Your task to perform on an android device: delete location history Image 0: 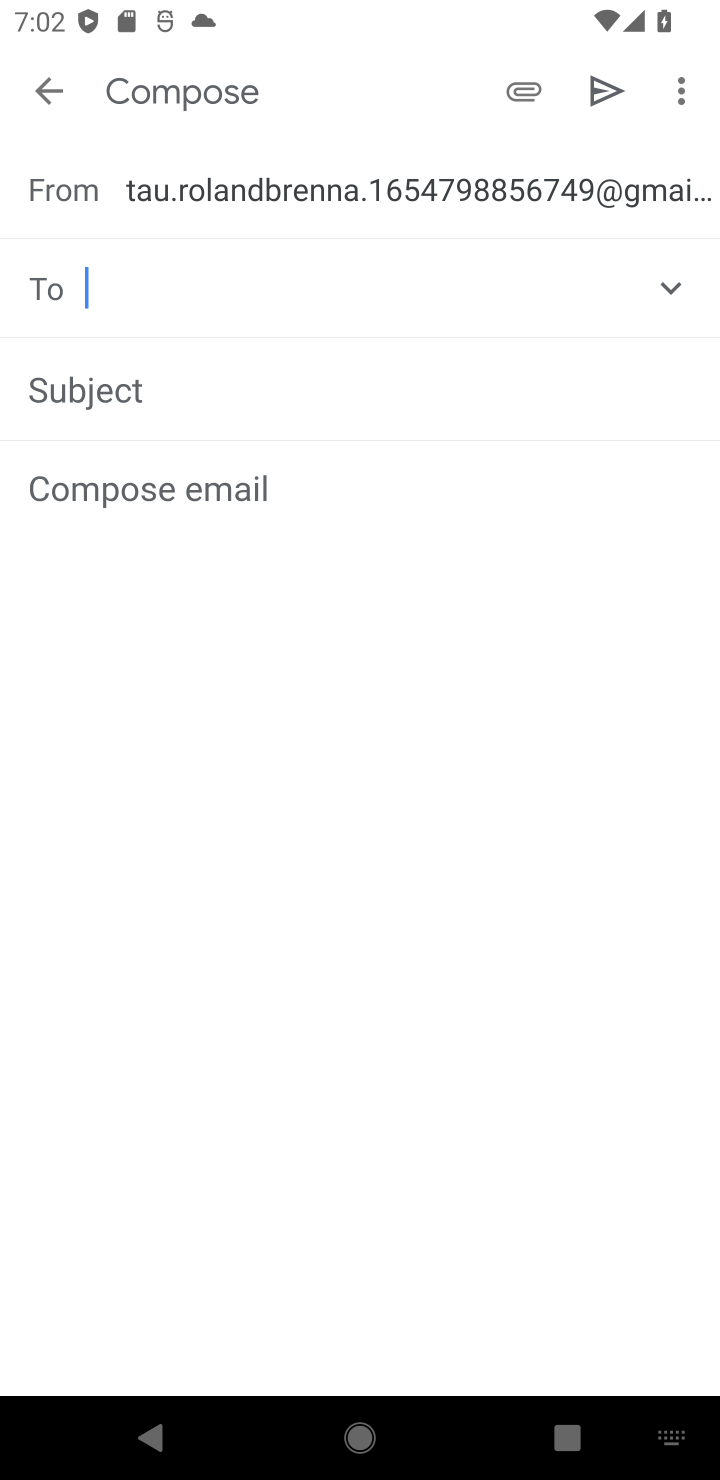
Step 0: press home button
Your task to perform on an android device: delete location history Image 1: 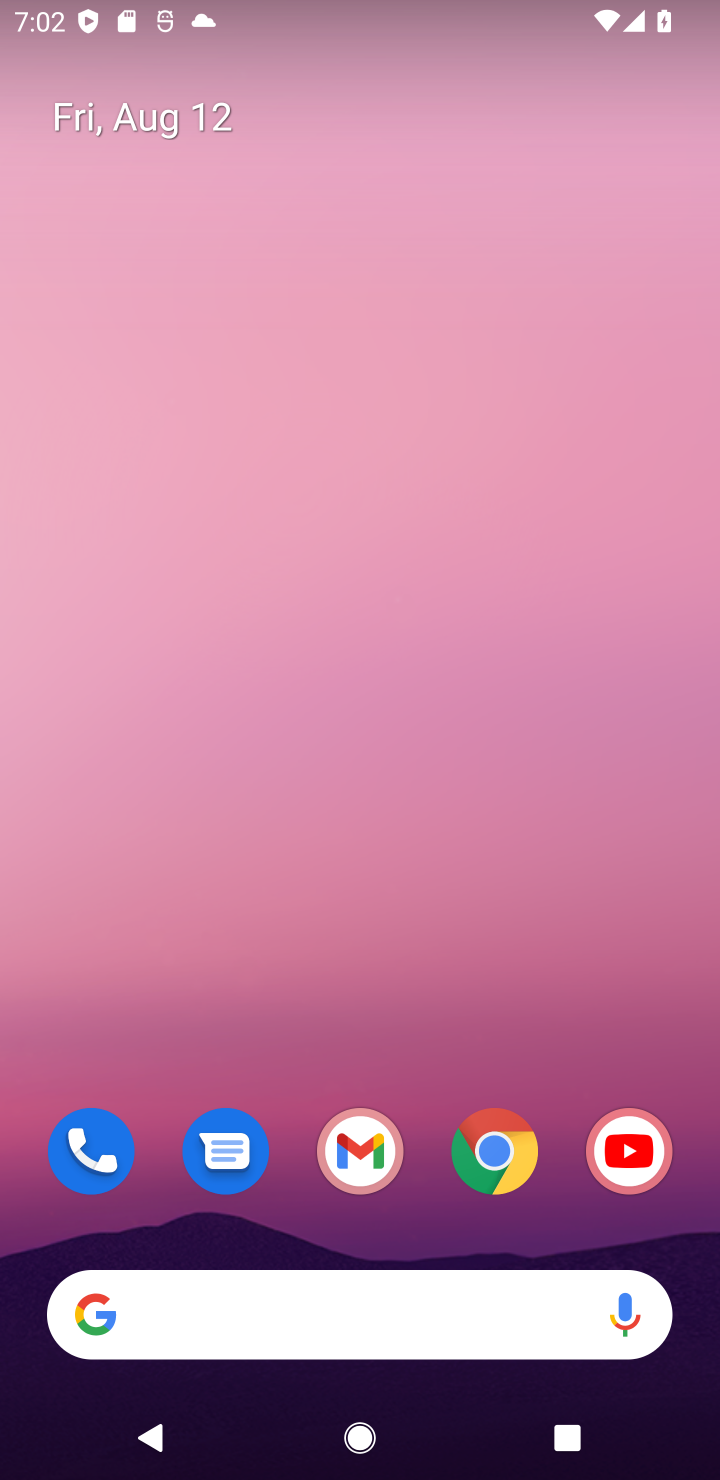
Step 1: drag from (334, 1007) to (402, 18)
Your task to perform on an android device: delete location history Image 2: 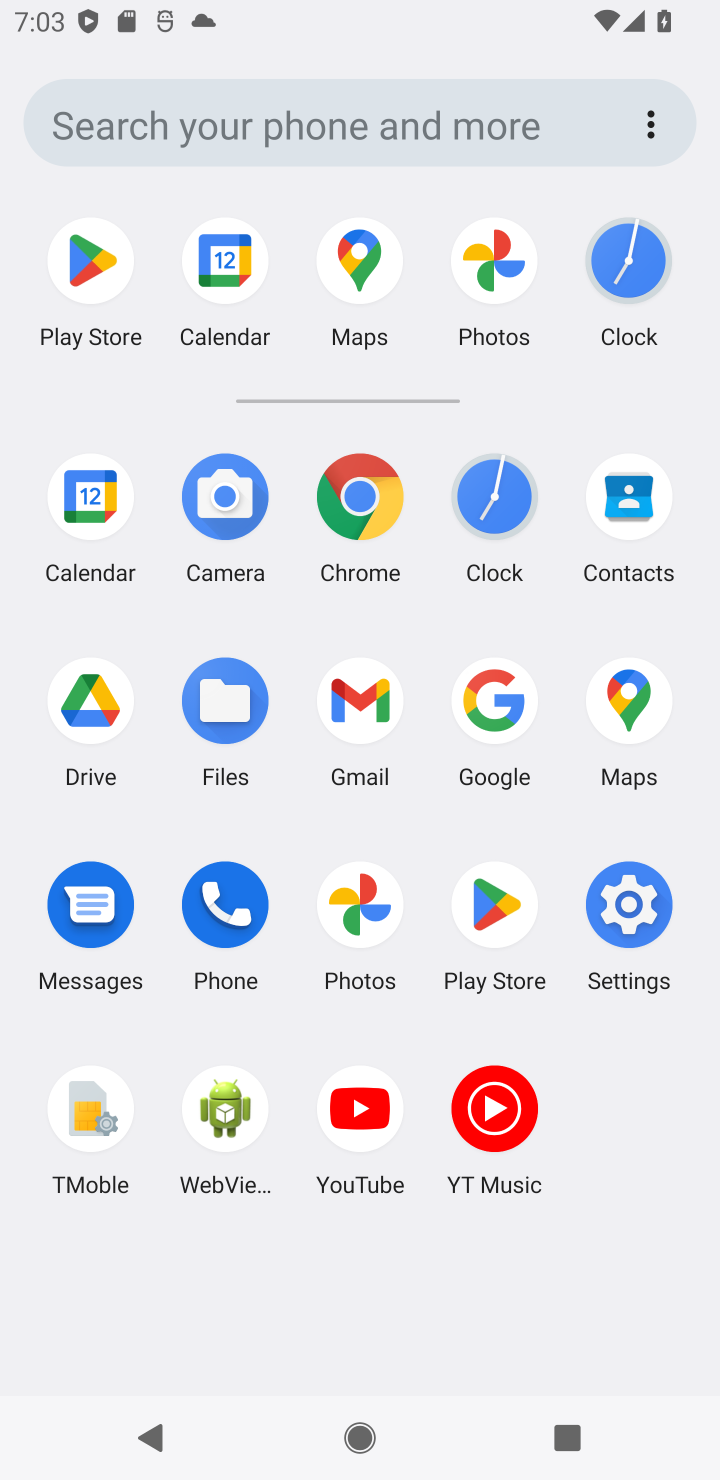
Step 2: click (639, 699)
Your task to perform on an android device: delete location history Image 3: 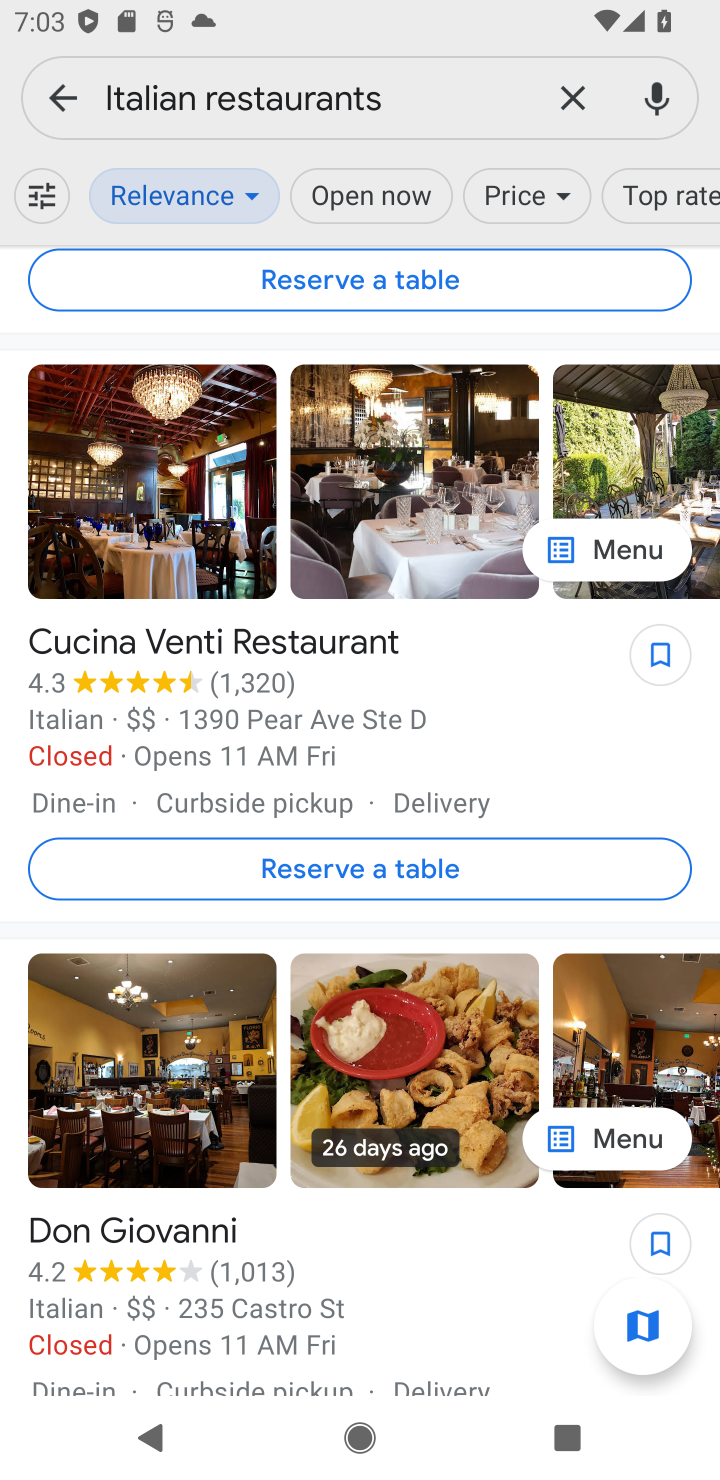
Step 3: click (48, 77)
Your task to perform on an android device: delete location history Image 4: 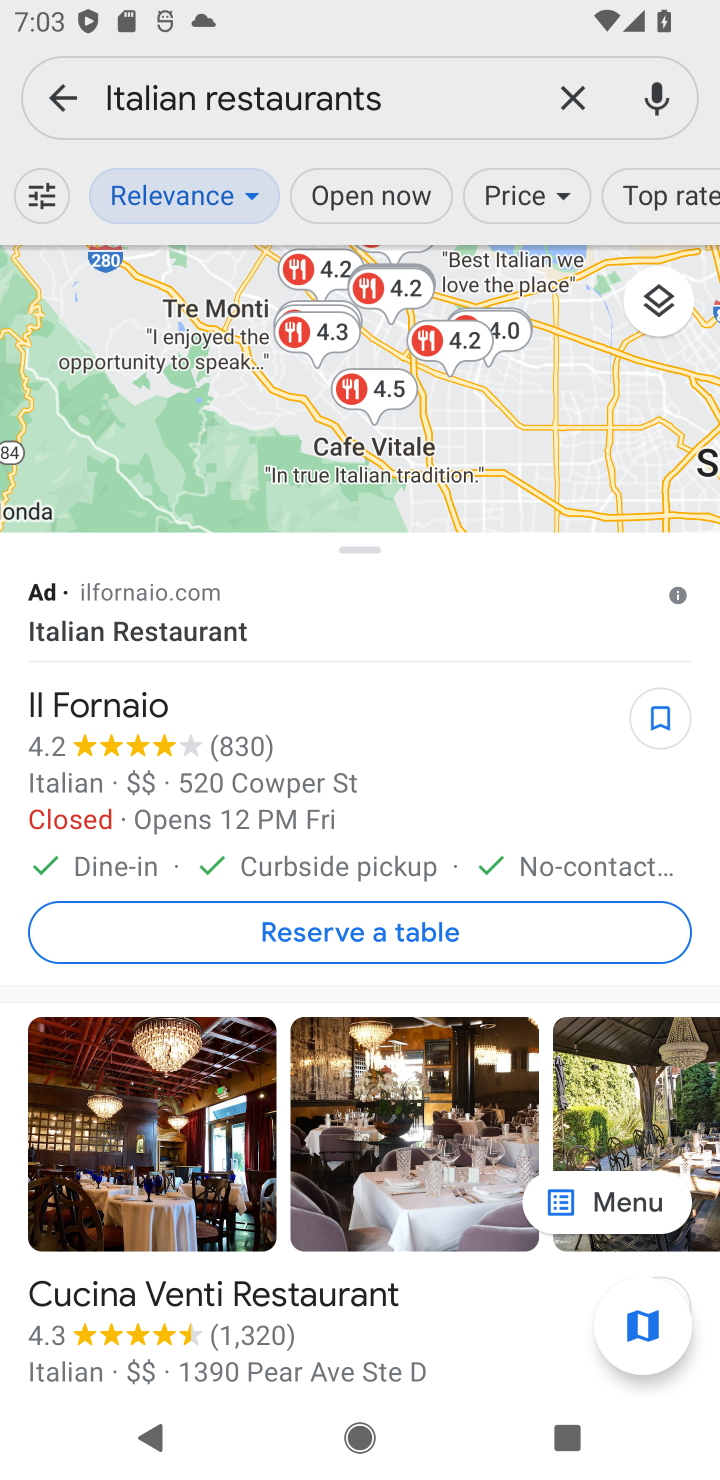
Step 4: click (58, 98)
Your task to perform on an android device: delete location history Image 5: 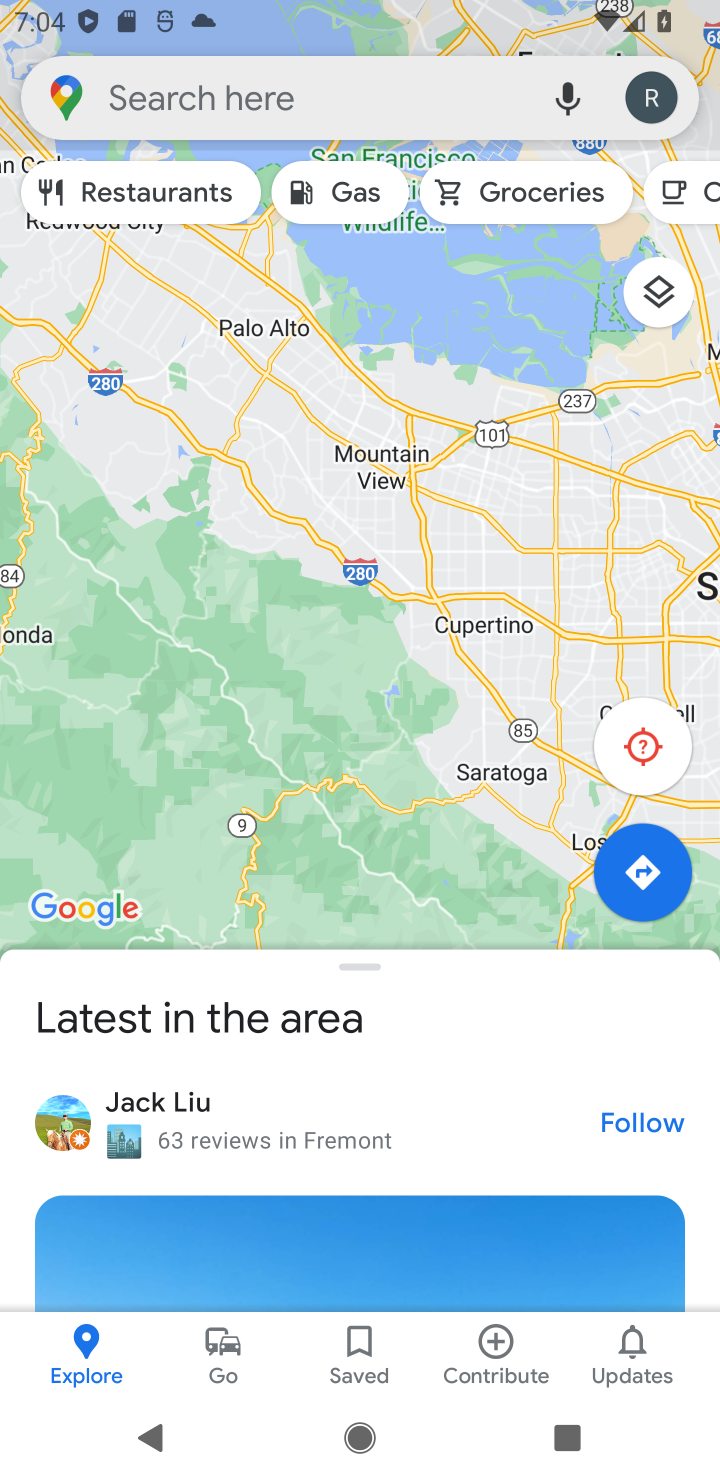
Step 5: click (671, 88)
Your task to perform on an android device: delete location history Image 6: 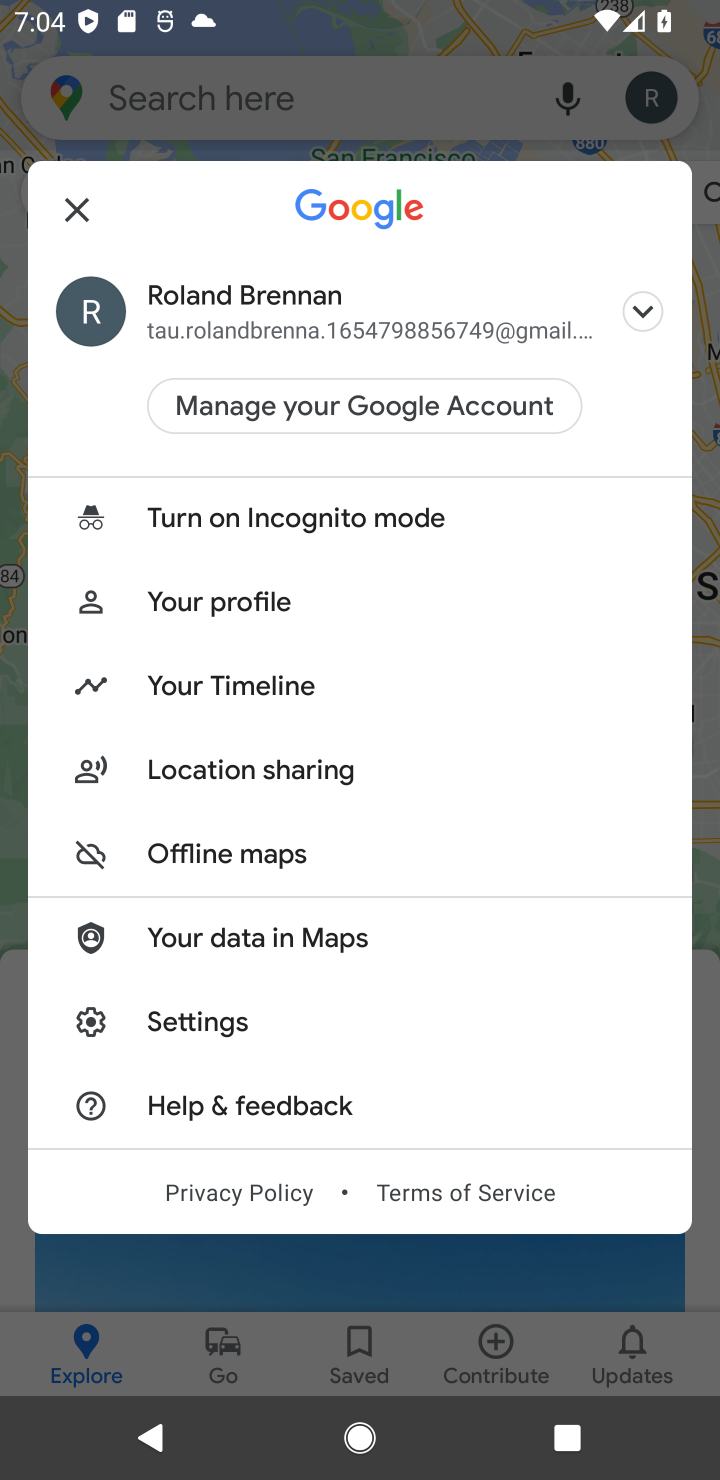
Step 6: click (216, 999)
Your task to perform on an android device: delete location history Image 7: 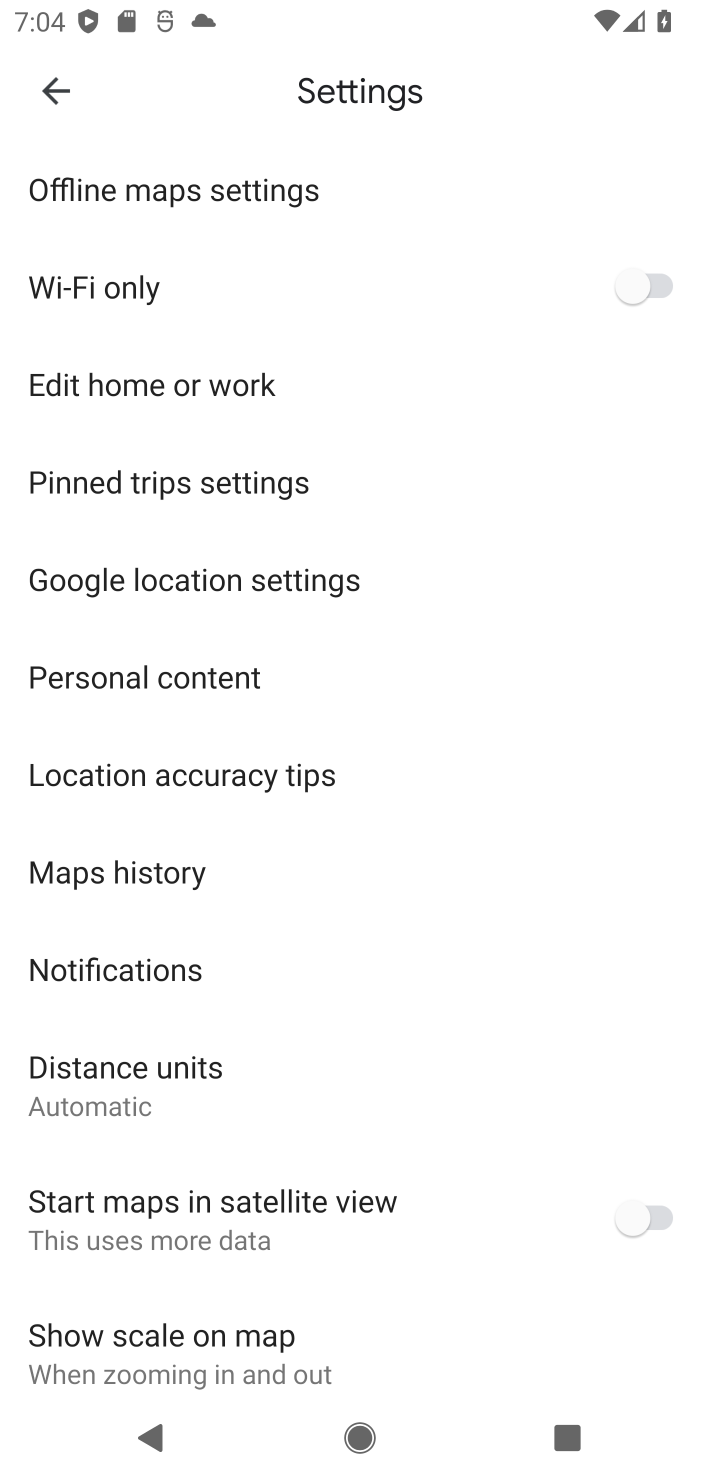
Step 7: click (117, 873)
Your task to perform on an android device: delete location history Image 8: 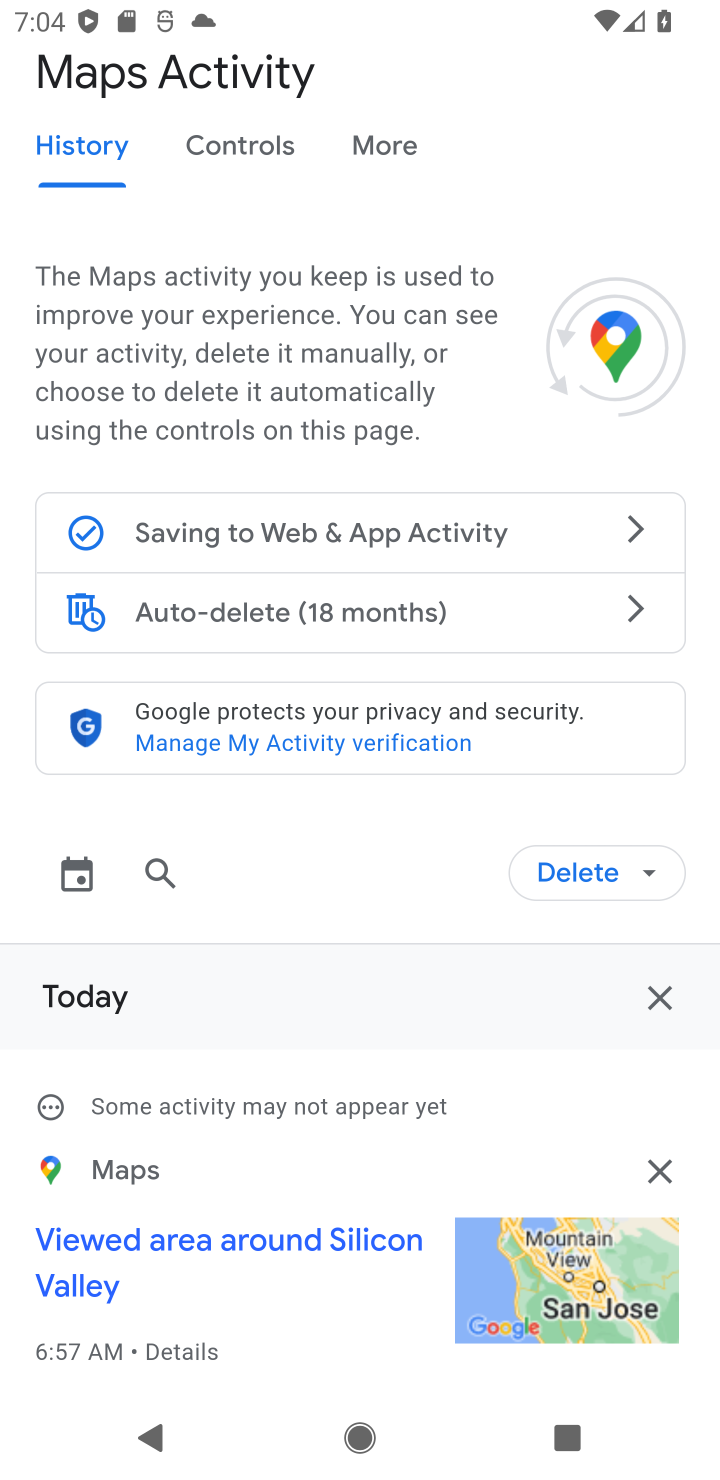
Step 8: click (655, 879)
Your task to perform on an android device: delete location history Image 9: 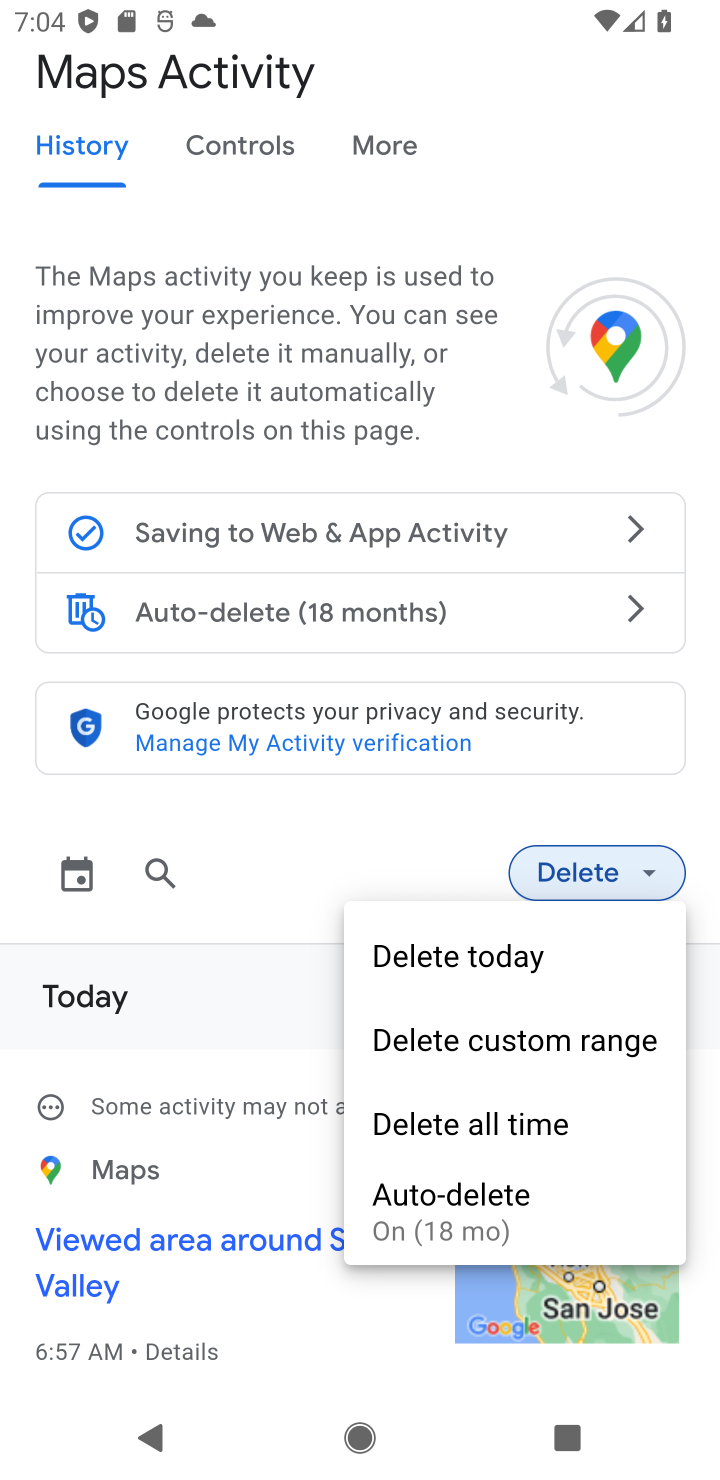
Step 9: click (549, 1118)
Your task to perform on an android device: delete location history Image 10: 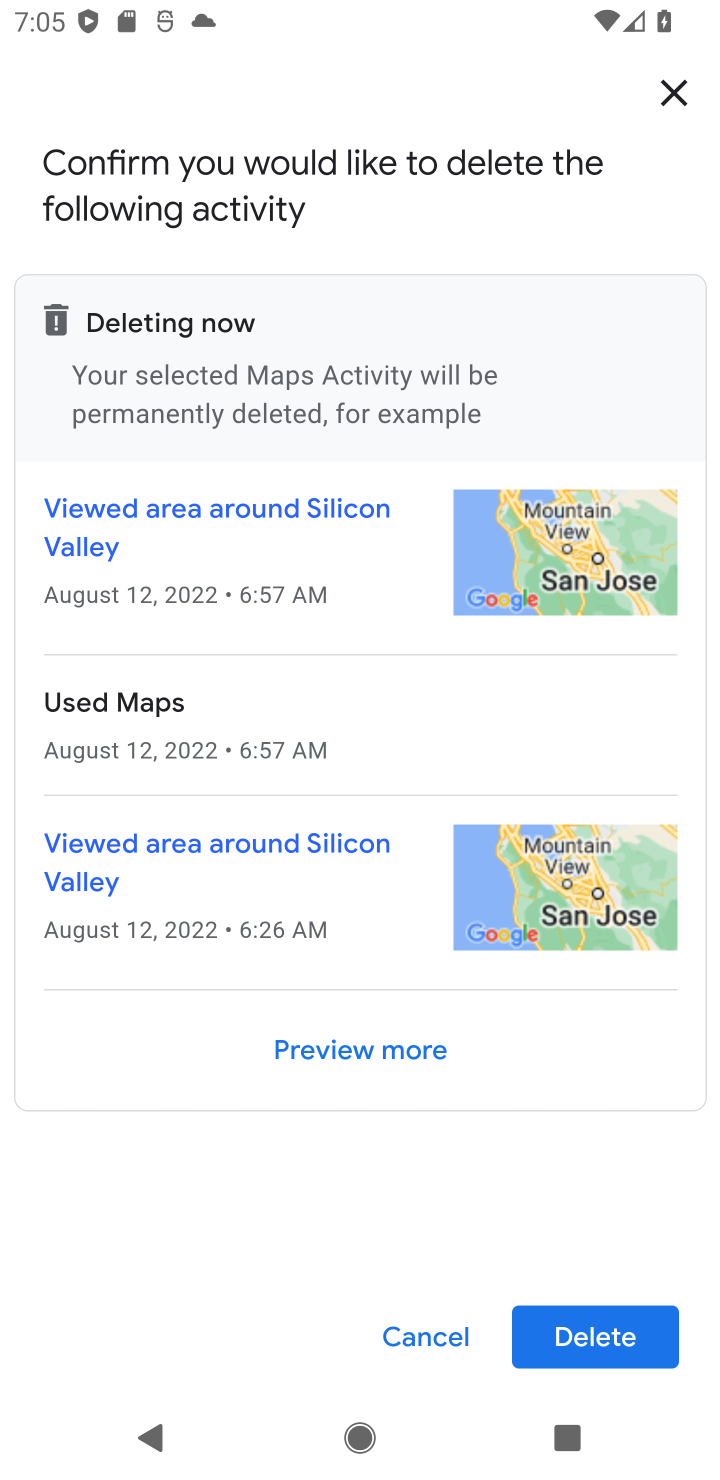
Step 10: click (604, 1321)
Your task to perform on an android device: delete location history Image 11: 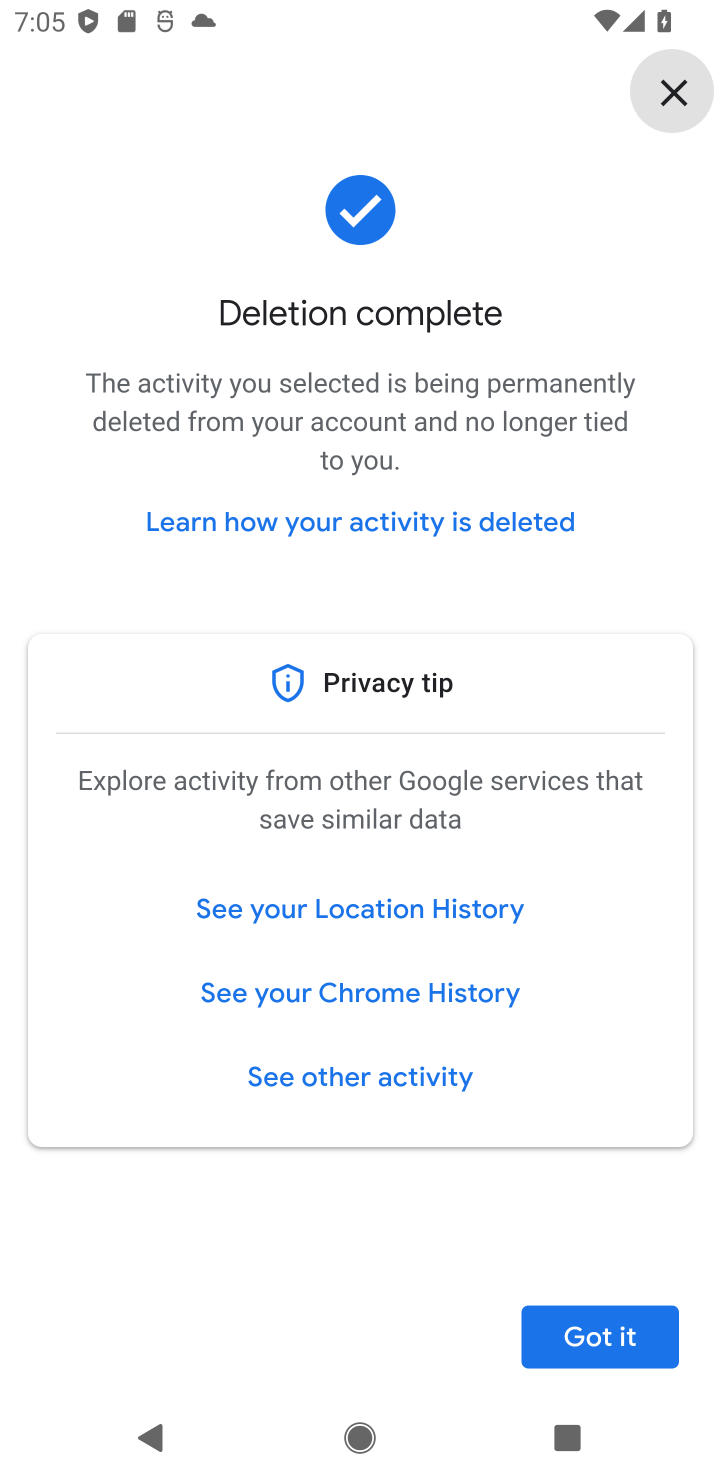
Step 11: task complete